Your task to perform on an android device: Open Maps and search for coffee Image 0: 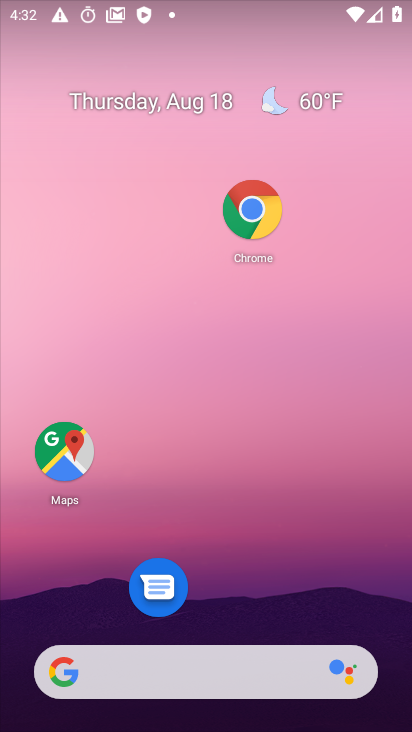
Step 0: drag from (260, 595) to (131, 49)
Your task to perform on an android device: Open Maps and search for coffee Image 1: 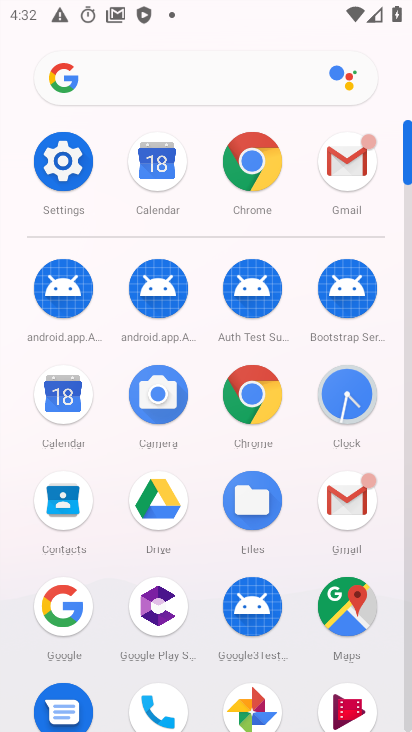
Step 1: click (350, 606)
Your task to perform on an android device: Open Maps and search for coffee Image 2: 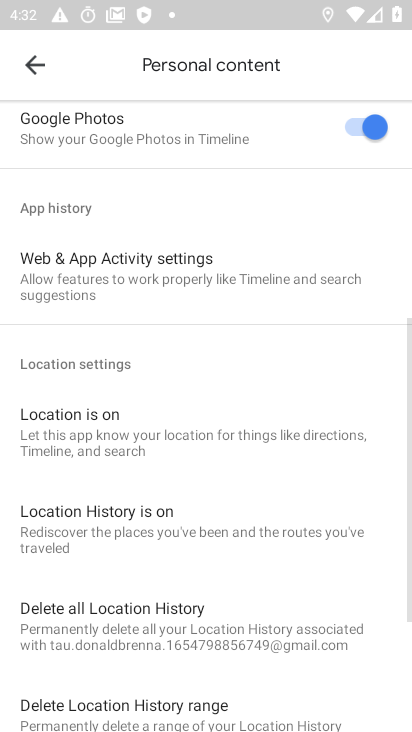
Step 2: click (28, 63)
Your task to perform on an android device: Open Maps and search for coffee Image 3: 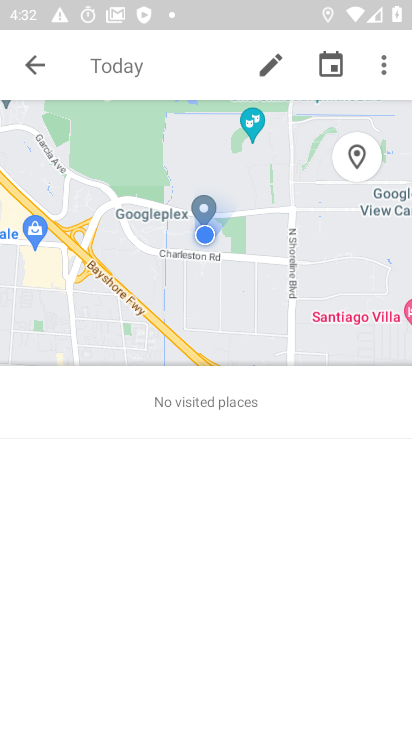
Step 3: click (28, 63)
Your task to perform on an android device: Open Maps and search for coffee Image 4: 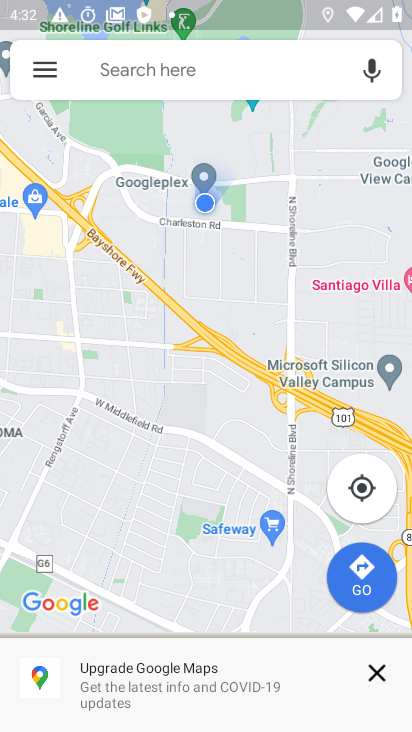
Step 4: click (119, 61)
Your task to perform on an android device: Open Maps and search for coffee Image 5: 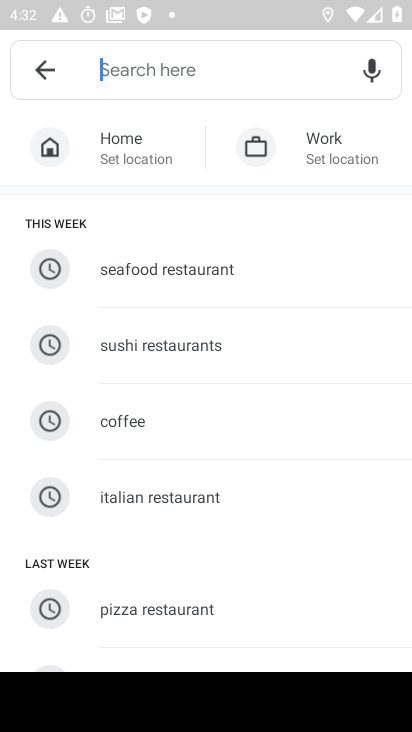
Step 5: type " coffee"
Your task to perform on an android device: Open Maps and search for coffee Image 6: 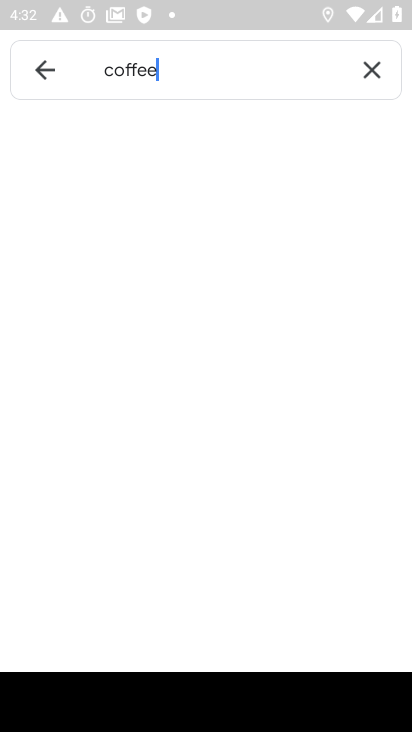
Step 6: type ""
Your task to perform on an android device: Open Maps and search for coffee Image 7: 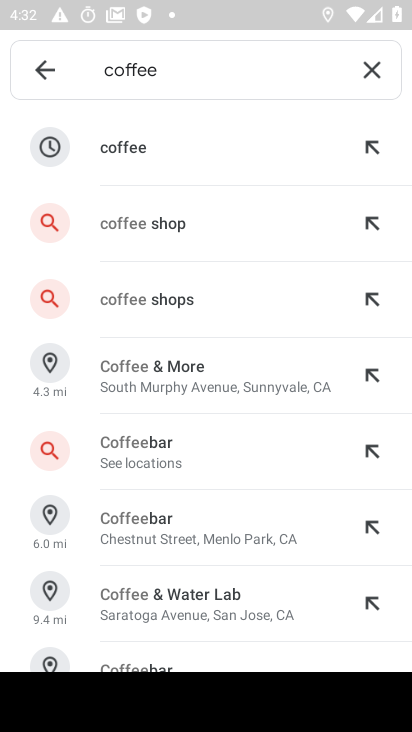
Step 7: click (111, 142)
Your task to perform on an android device: Open Maps and search for coffee Image 8: 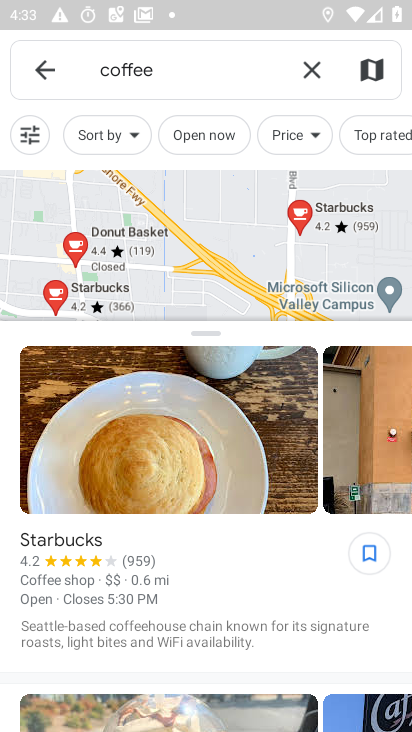
Step 8: task complete